Your task to perform on an android device: Go to Google Image 0: 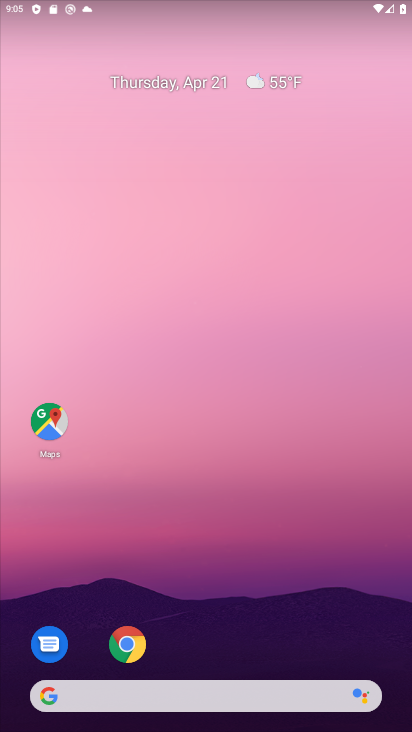
Step 0: drag from (190, 650) to (205, 232)
Your task to perform on an android device: Go to Google Image 1: 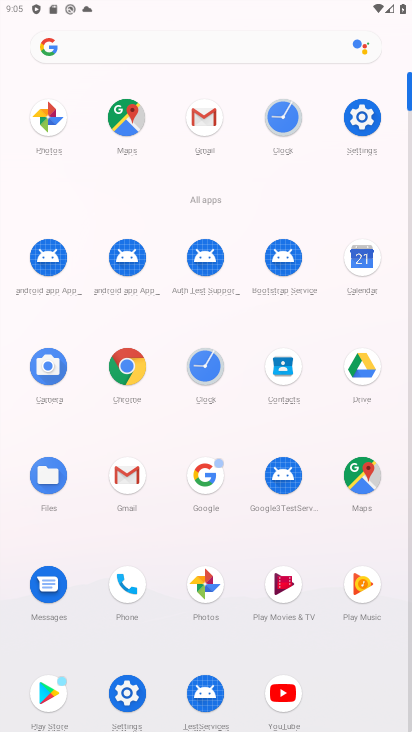
Step 1: click (210, 474)
Your task to perform on an android device: Go to Google Image 2: 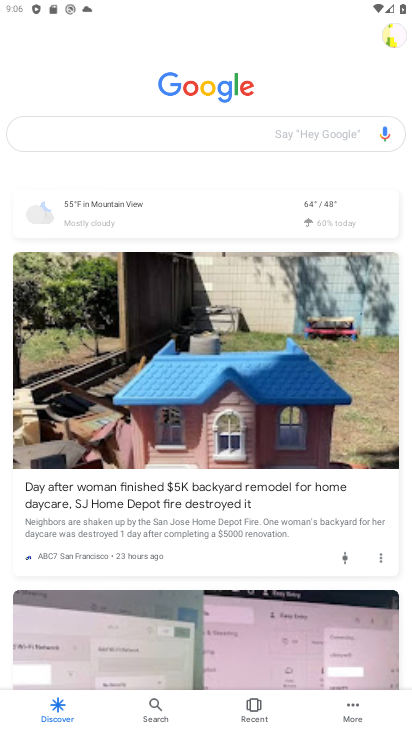
Step 2: task complete